Your task to perform on an android device: Open Chrome and go to the settings page Image 0: 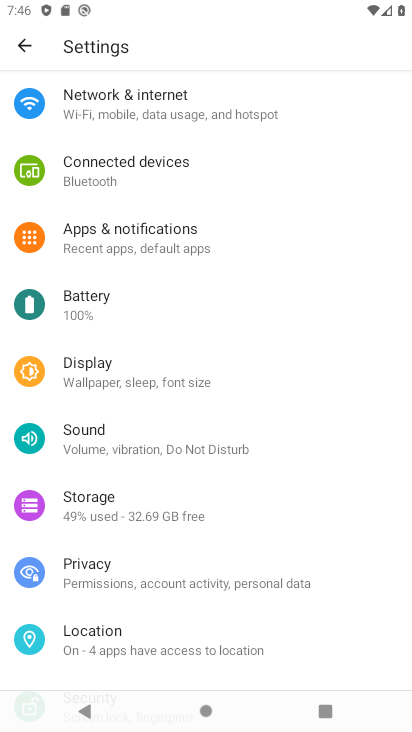
Step 0: press home button
Your task to perform on an android device: Open Chrome and go to the settings page Image 1: 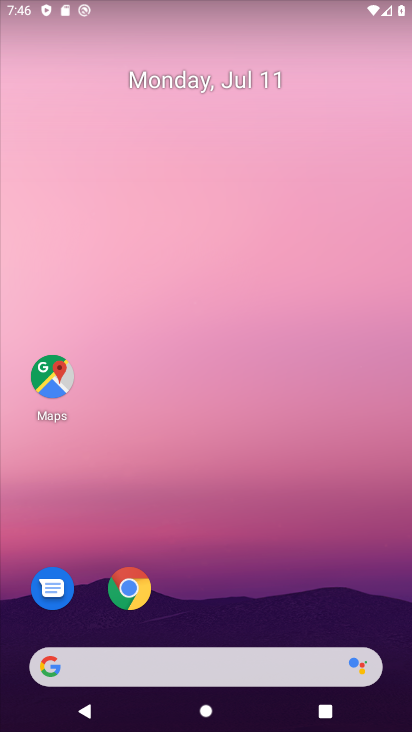
Step 1: click (139, 592)
Your task to perform on an android device: Open Chrome and go to the settings page Image 2: 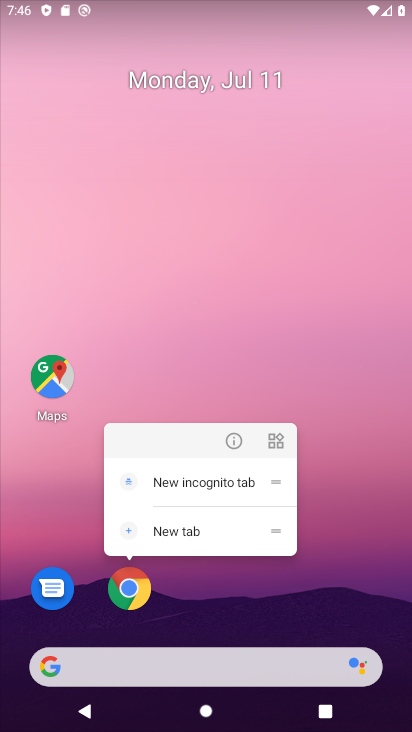
Step 2: click (137, 611)
Your task to perform on an android device: Open Chrome and go to the settings page Image 3: 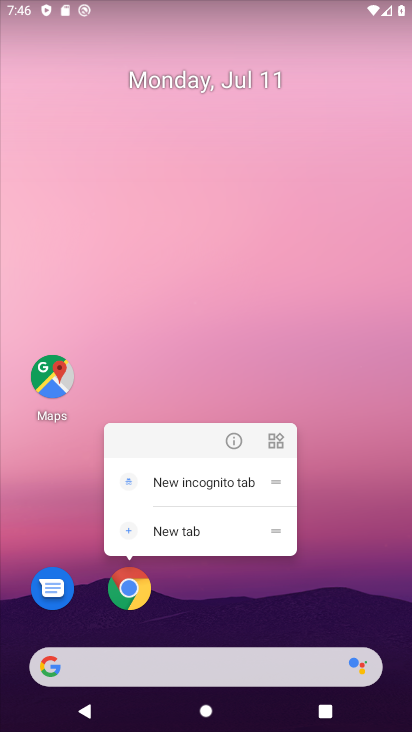
Step 3: click (137, 611)
Your task to perform on an android device: Open Chrome and go to the settings page Image 4: 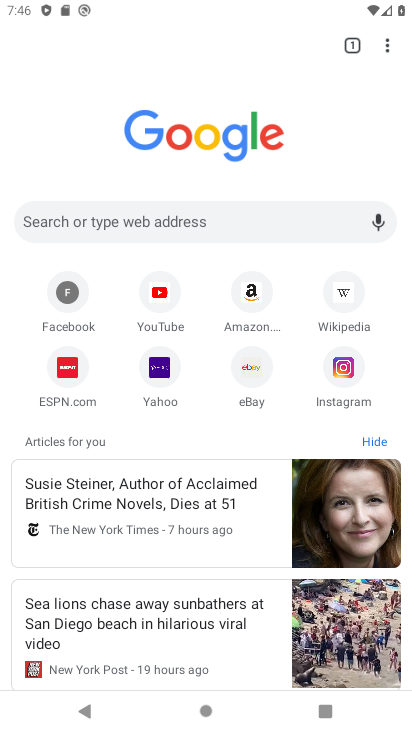
Step 4: click (388, 36)
Your task to perform on an android device: Open Chrome and go to the settings page Image 5: 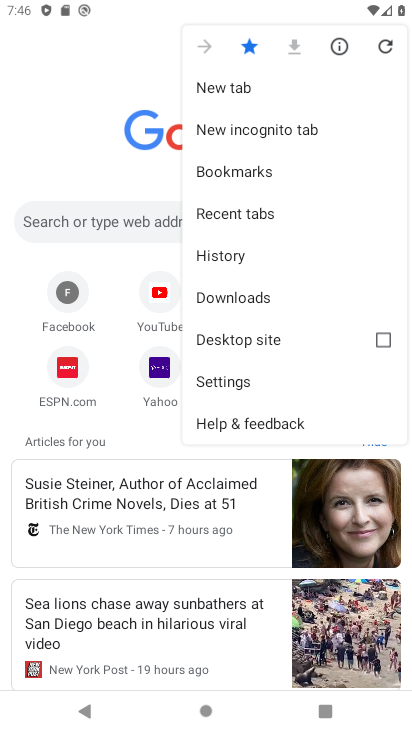
Step 5: click (223, 384)
Your task to perform on an android device: Open Chrome and go to the settings page Image 6: 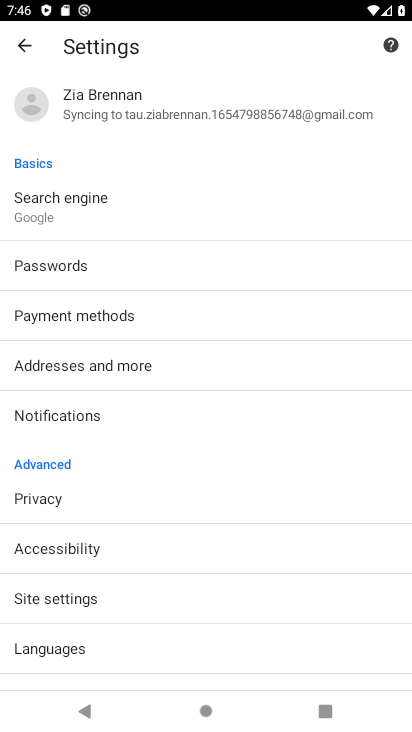
Step 6: task complete